Your task to perform on an android device: Open CNN.com Image 0: 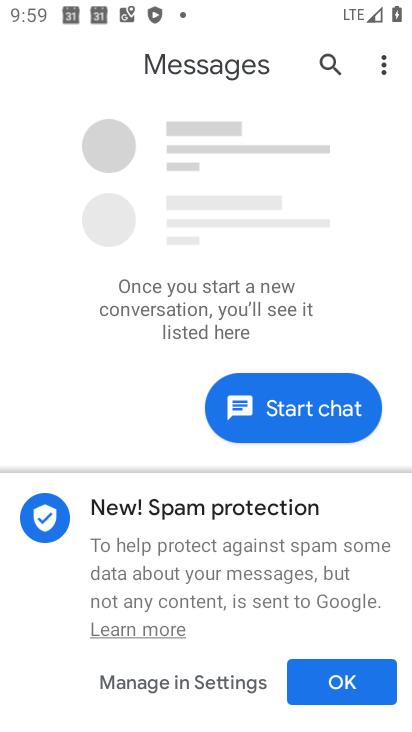
Step 0: press home button
Your task to perform on an android device: Open CNN.com Image 1: 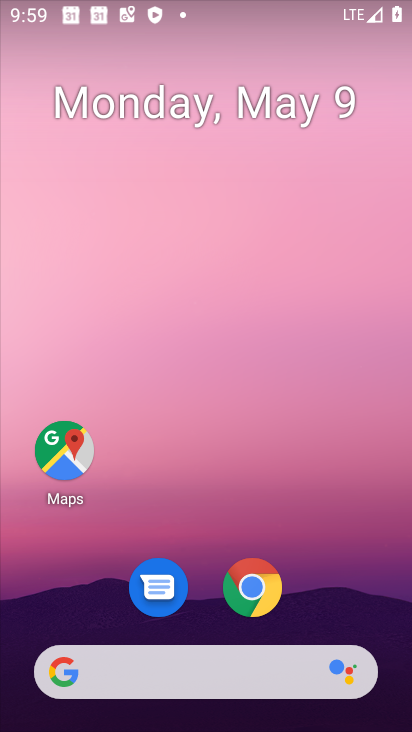
Step 1: click (222, 652)
Your task to perform on an android device: Open CNN.com Image 2: 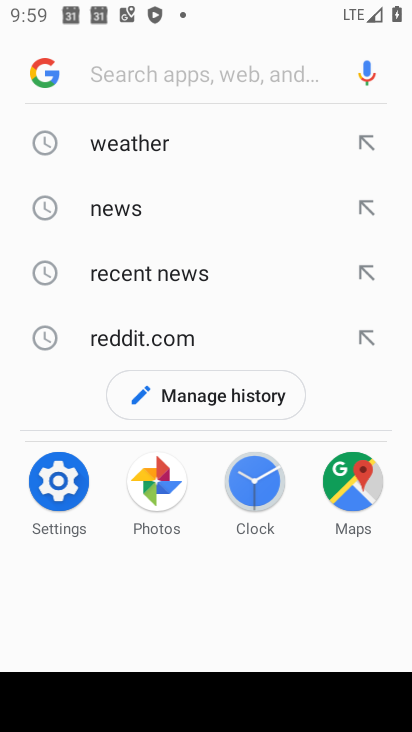
Step 2: type "cnn.com"
Your task to perform on an android device: Open CNN.com Image 3: 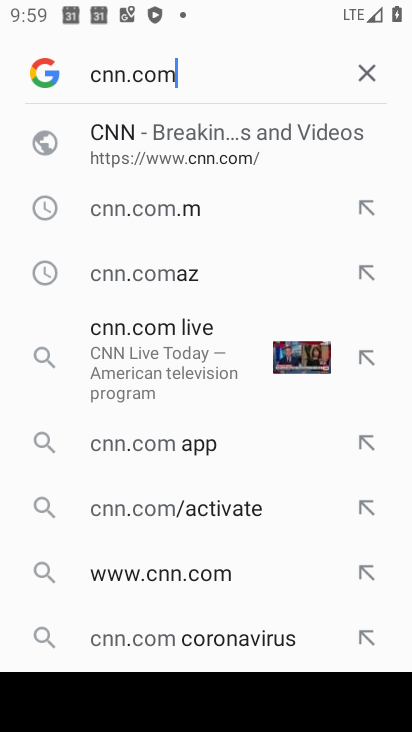
Step 3: click (219, 158)
Your task to perform on an android device: Open CNN.com Image 4: 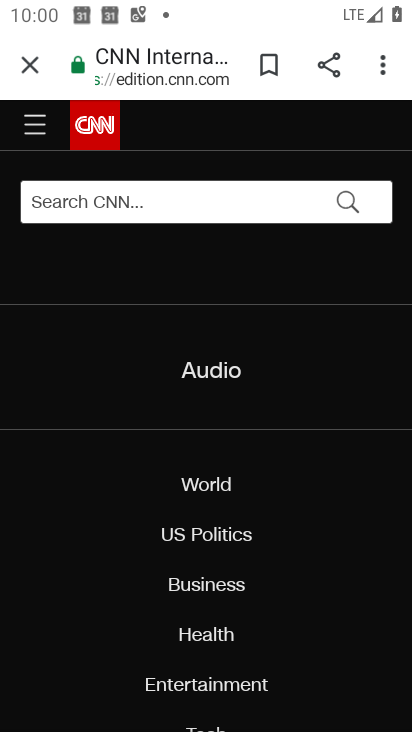
Step 4: task complete